Your task to perform on an android device: Open Google Image 0: 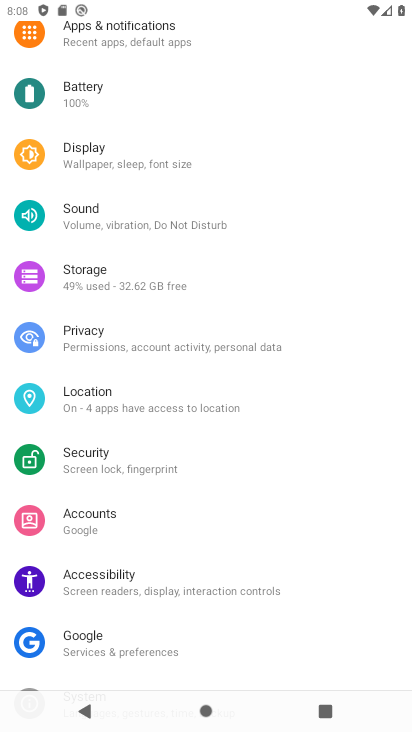
Step 0: press home button
Your task to perform on an android device: Open Google Image 1: 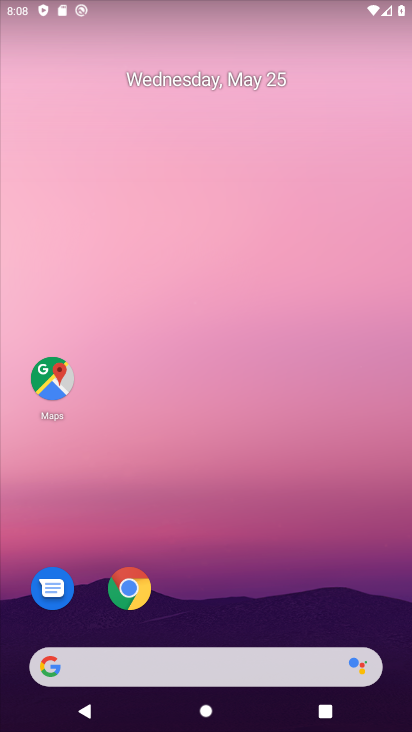
Step 1: click (96, 673)
Your task to perform on an android device: Open Google Image 2: 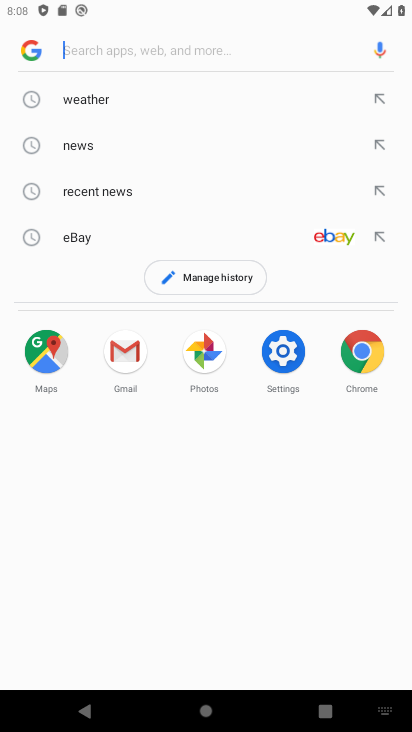
Step 2: click (27, 52)
Your task to perform on an android device: Open Google Image 3: 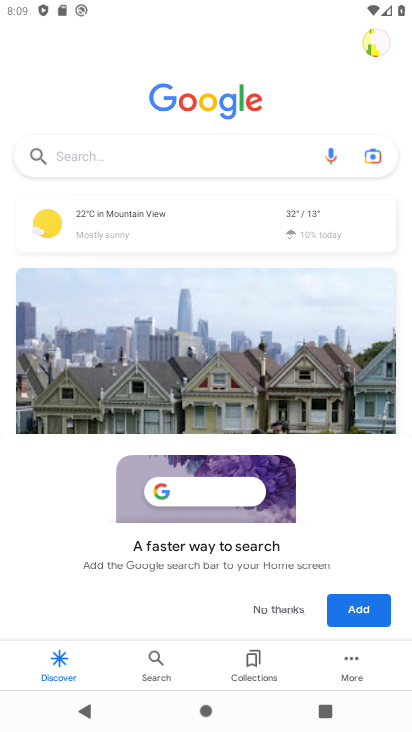
Step 3: task complete